Your task to perform on an android device: Turn off the flashlight Image 0: 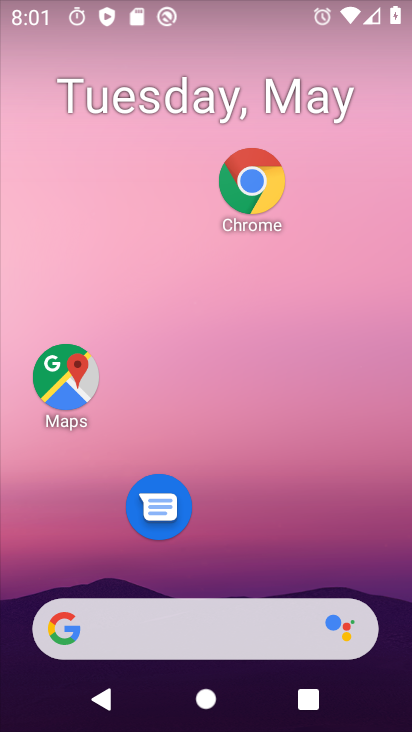
Step 0: drag from (259, 545) to (401, 21)
Your task to perform on an android device: Turn off the flashlight Image 1: 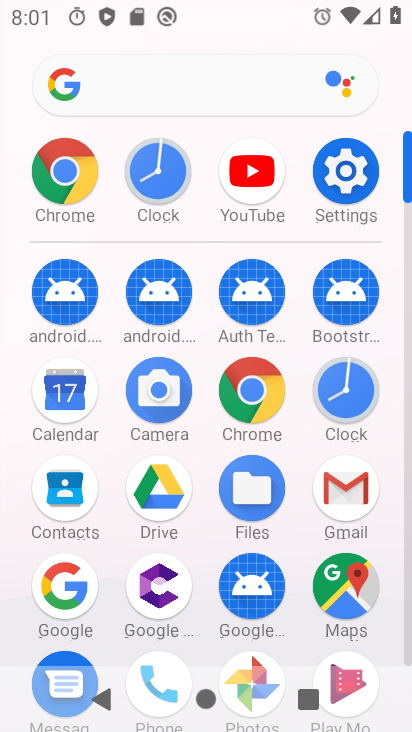
Step 1: click (346, 169)
Your task to perform on an android device: Turn off the flashlight Image 2: 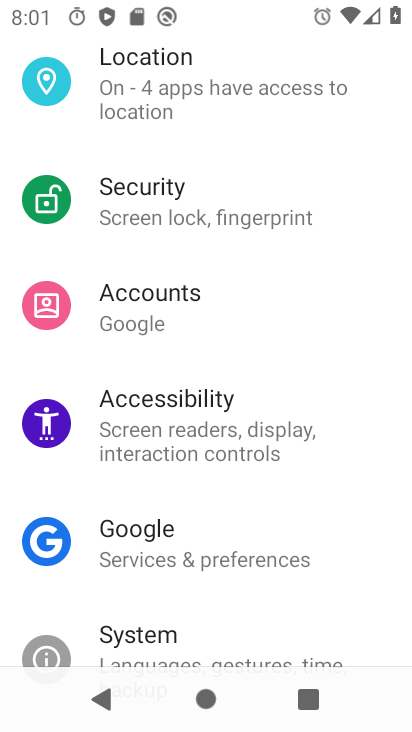
Step 2: task complete